Your task to perform on an android device: open device folders in google photos Image 0: 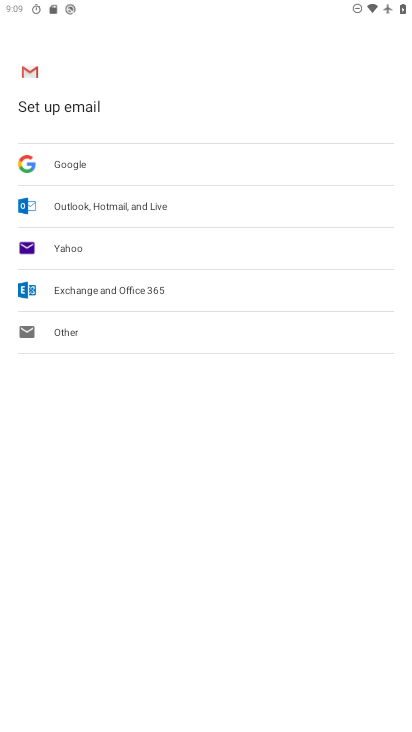
Step 0: press home button
Your task to perform on an android device: open device folders in google photos Image 1: 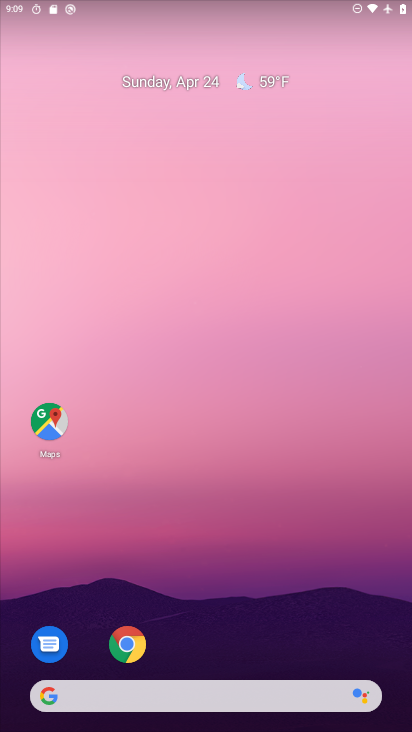
Step 1: drag from (214, 667) to (211, 12)
Your task to perform on an android device: open device folders in google photos Image 2: 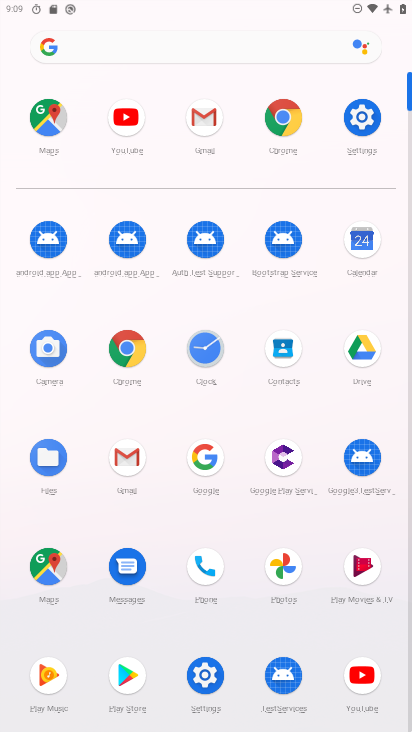
Step 2: click (280, 561)
Your task to perform on an android device: open device folders in google photos Image 3: 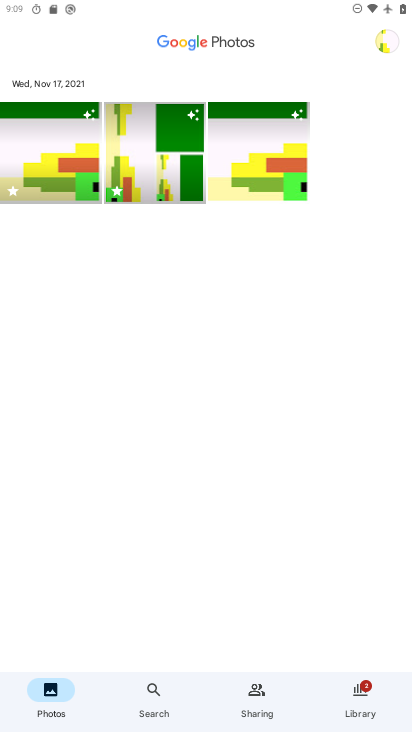
Step 3: click (387, 42)
Your task to perform on an android device: open device folders in google photos Image 4: 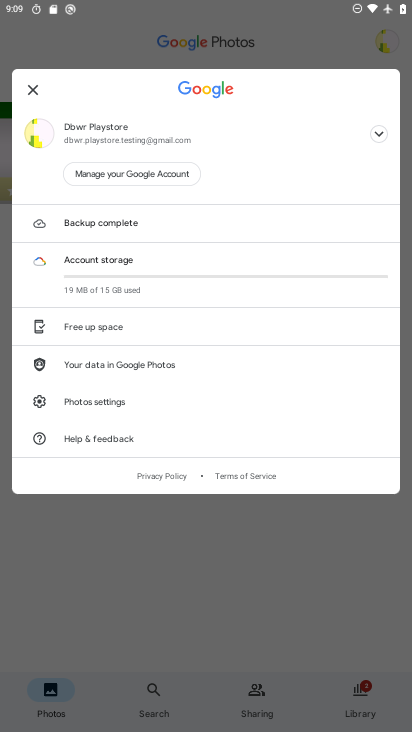
Step 4: click (157, 626)
Your task to perform on an android device: open device folders in google photos Image 5: 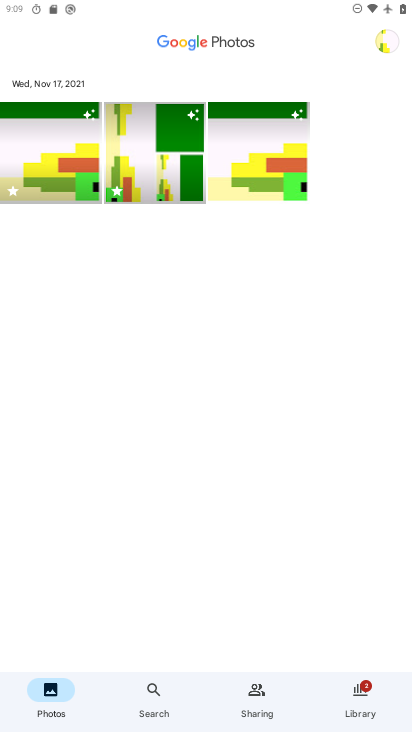
Step 5: click (150, 688)
Your task to perform on an android device: open device folders in google photos Image 6: 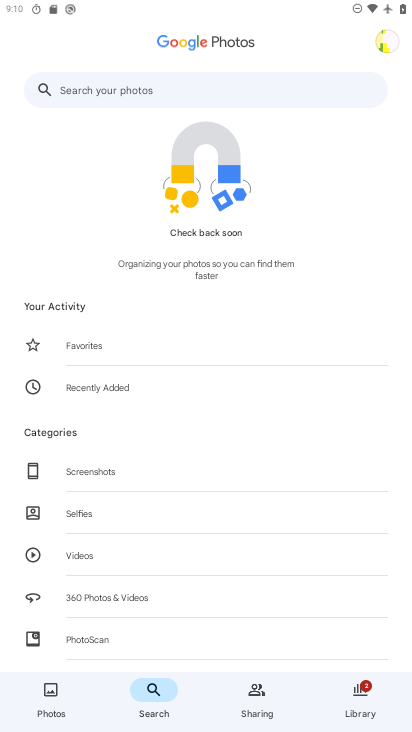
Step 6: click (126, 83)
Your task to perform on an android device: open device folders in google photos Image 7: 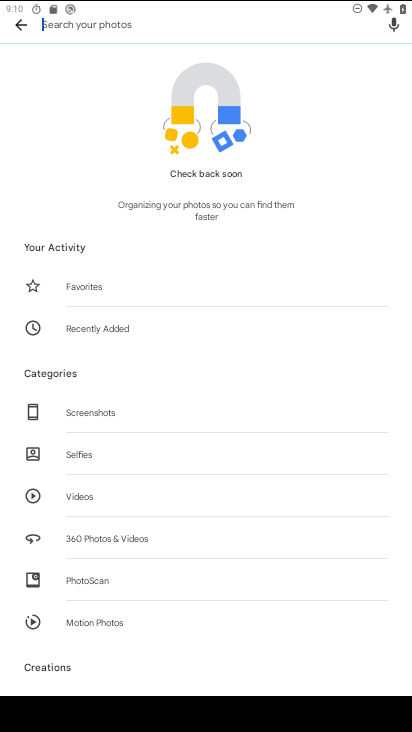
Step 7: type "device"
Your task to perform on an android device: open device folders in google photos Image 8: 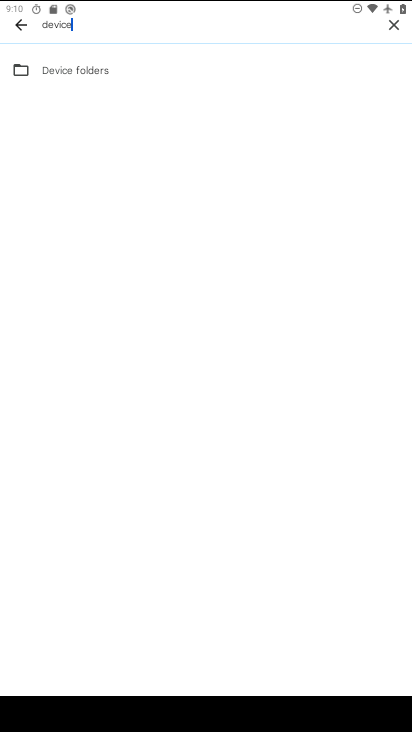
Step 8: click (121, 65)
Your task to perform on an android device: open device folders in google photos Image 9: 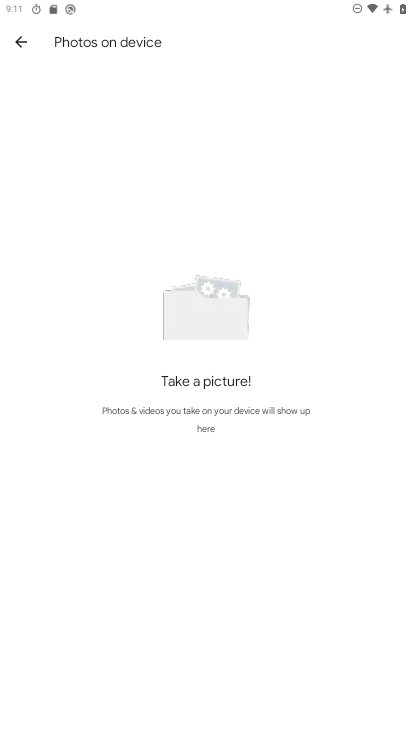
Step 9: task complete